Your task to perform on an android device: turn off data saver in the chrome app Image 0: 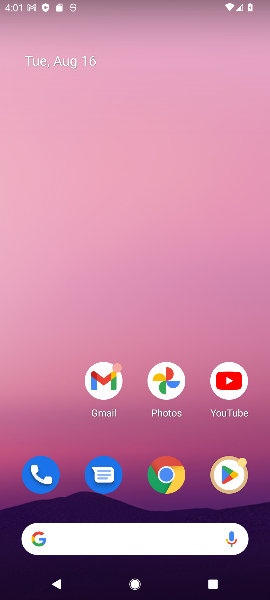
Step 0: drag from (260, 463) to (100, 4)
Your task to perform on an android device: turn off data saver in the chrome app Image 1: 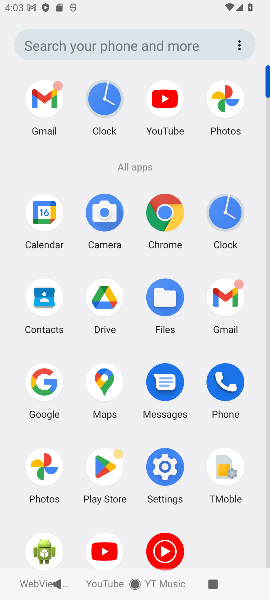
Step 1: click (171, 221)
Your task to perform on an android device: turn off data saver in the chrome app Image 2: 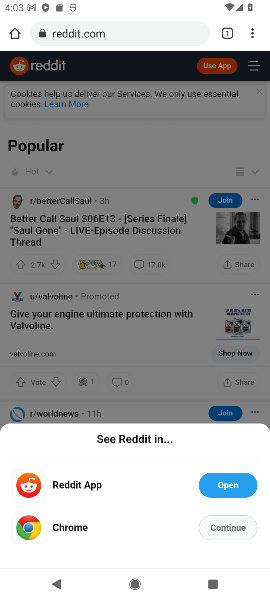
Step 2: press back button
Your task to perform on an android device: turn off data saver in the chrome app Image 3: 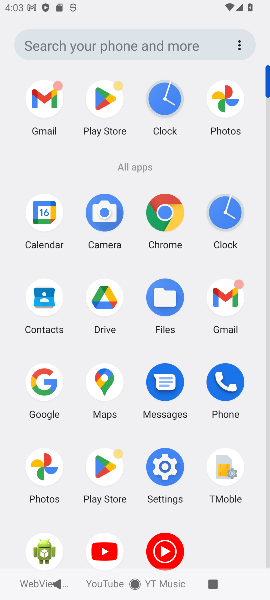
Step 3: click (174, 219)
Your task to perform on an android device: turn off data saver in the chrome app Image 4: 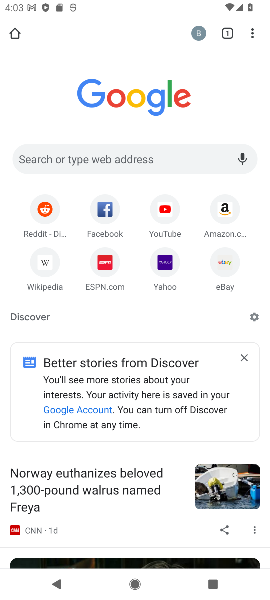
Step 4: click (255, 28)
Your task to perform on an android device: turn off data saver in the chrome app Image 5: 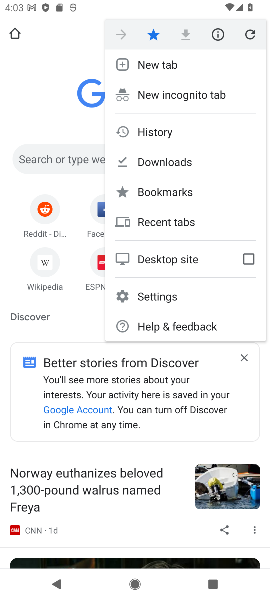
Step 5: click (159, 300)
Your task to perform on an android device: turn off data saver in the chrome app Image 6: 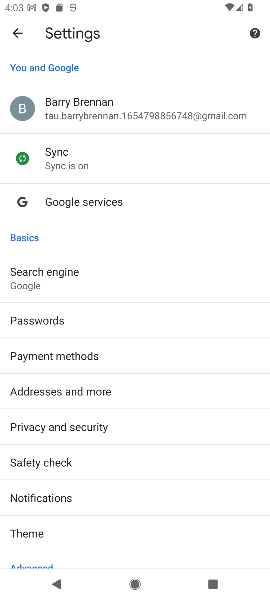
Step 6: drag from (71, 490) to (76, 157)
Your task to perform on an android device: turn off data saver in the chrome app Image 7: 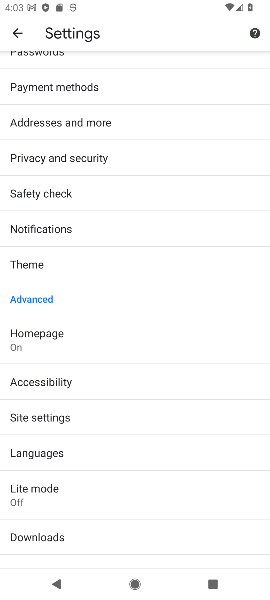
Step 7: click (42, 490)
Your task to perform on an android device: turn off data saver in the chrome app Image 8: 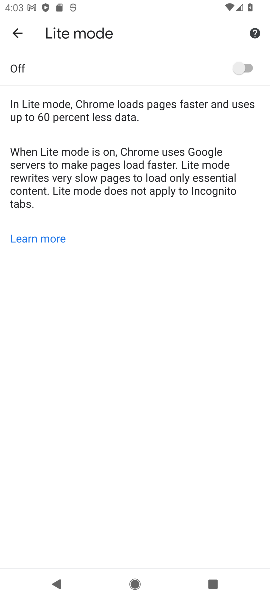
Step 8: task complete